Your task to perform on an android device: turn off javascript in the chrome app Image 0: 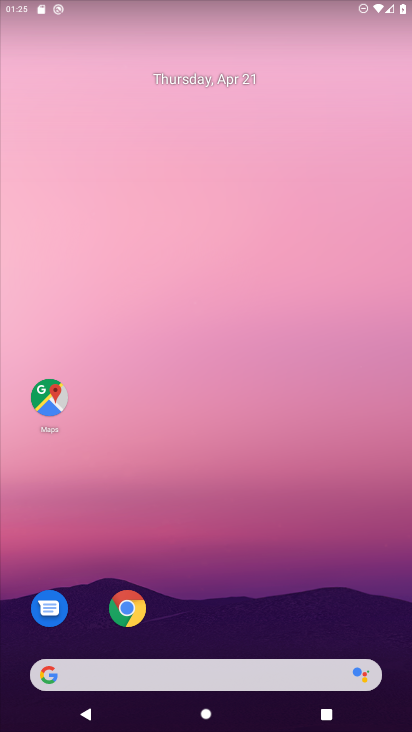
Step 0: click (310, 660)
Your task to perform on an android device: turn off javascript in the chrome app Image 1: 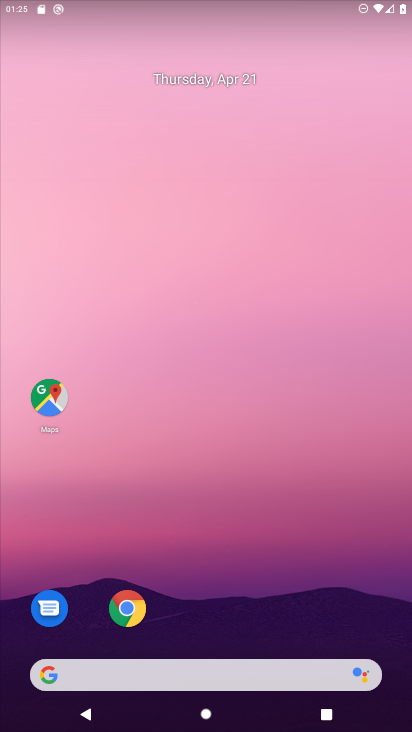
Step 1: click (277, 323)
Your task to perform on an android device: turn off javascript in the chrome app Image 2: 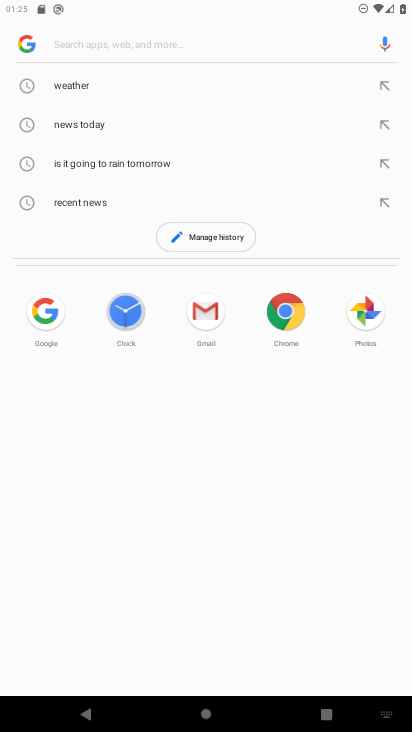
Step 2: press home button
Your task to perform on an android device: turn off javascript in the chrome app Image 3: 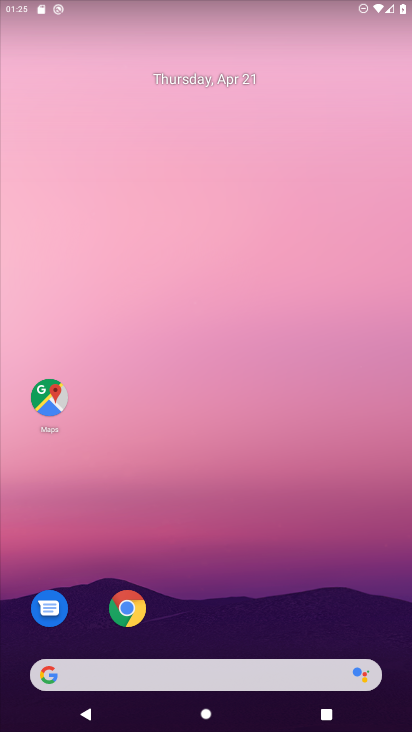
Step 3: click (246, 564)
Your task to perform on an android device: turn off javascript in the chrome app Image 4: 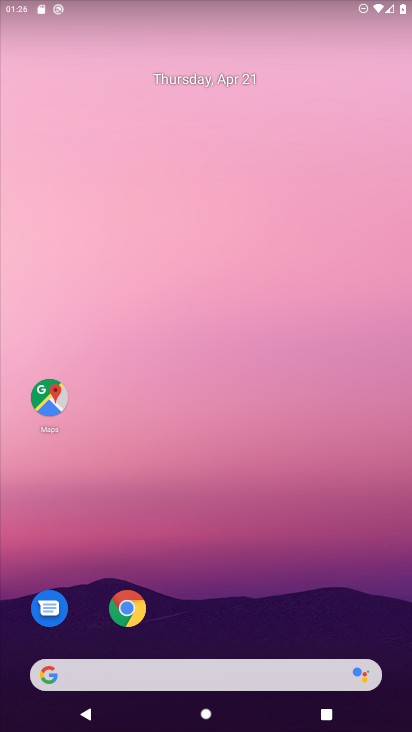
Step 4: drag from (261, 558) to (309, 61)
Your task to perform on an android device: turn off javascript in the chrome app Image 5: 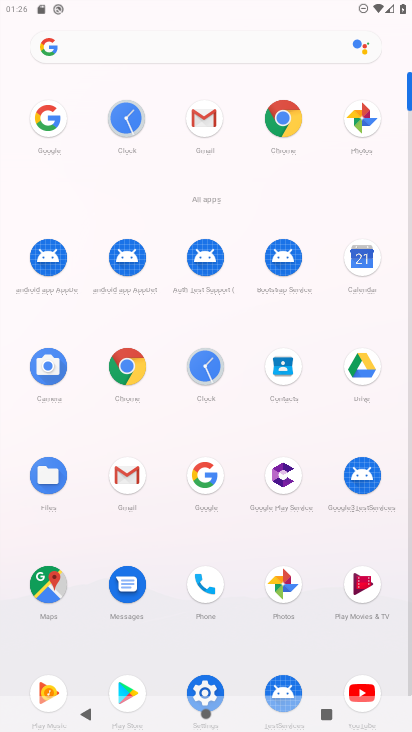
Step 5: click (125, 366)
Your task to perform on an android device: turn off javascript in the chrome app Image 6: 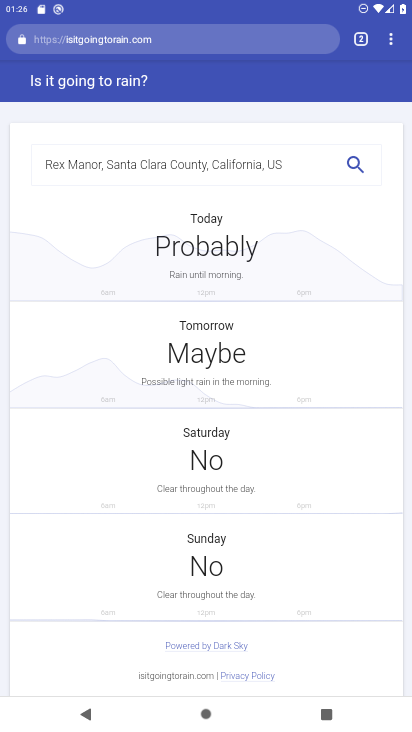
Step 6: click (386, 39)
Your task to perform on an android device: turn off javascript in the chrome app Image 7: 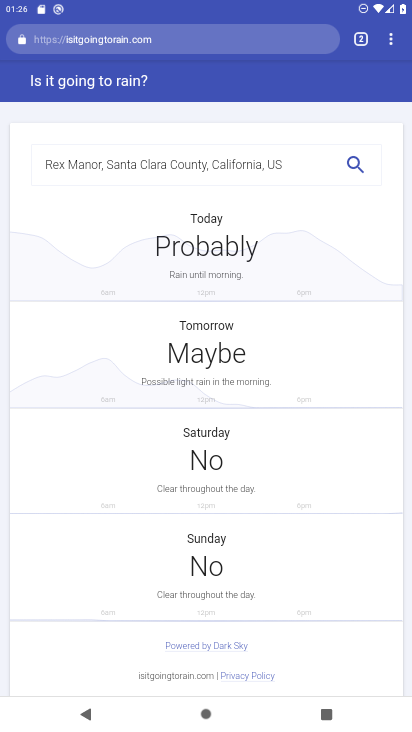
Step 7: click (386, 39)
Your task to perform on an android device: turn off javascript in the chrome app Image 8: 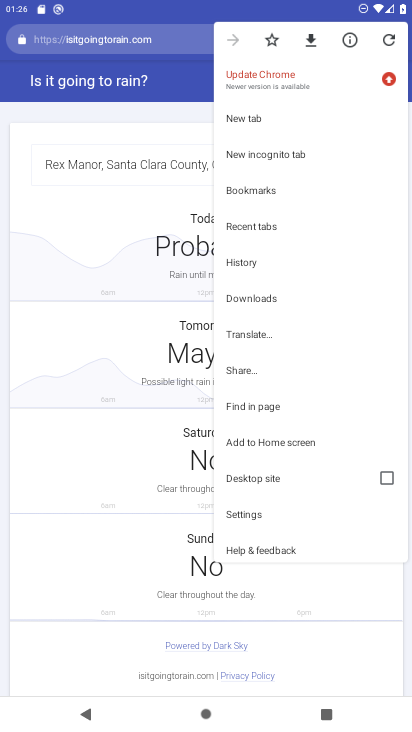
Step 8: click (268, 515)
Your task to perform on an android device: turn off javascript in the chrome app Image 9: 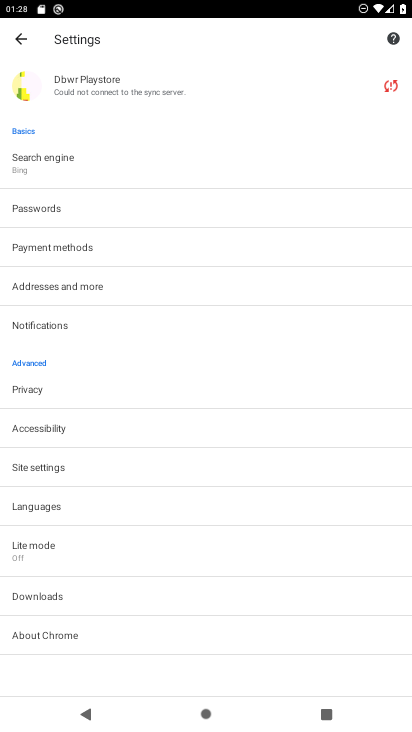
Step 9: click (84, 460)
Your task to perform on an android device: turn off javascript in the chrome app Image 10: 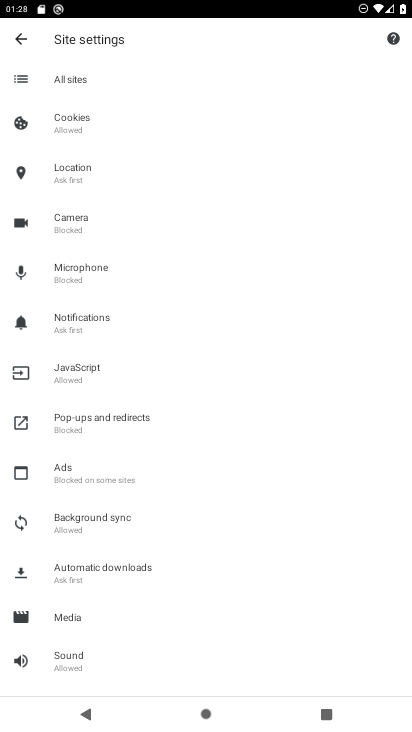
Step 10: click (99, 376)
Your task to perform on an android device: turn off javascript in the chrome app Image 11: 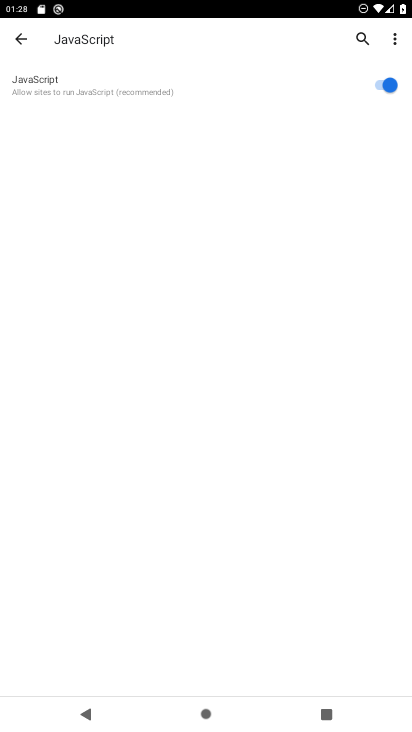
Step 11: click (375, 84)
Your task to perform on an android device: turn off javascript in the chrome app Image 12: 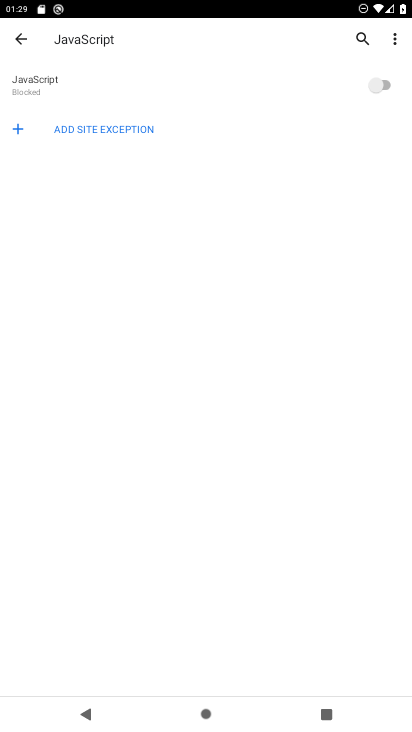
Step 12: task complete